Your task to perform on an android device: Go to calendar. Show me events next week Image 0: 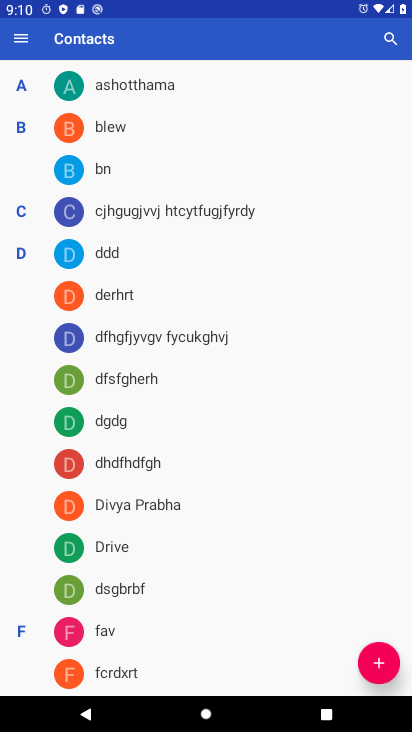
Step 0: press home button
Your task to perform on an android device: Go to calendar. Show me events next week Image 1: 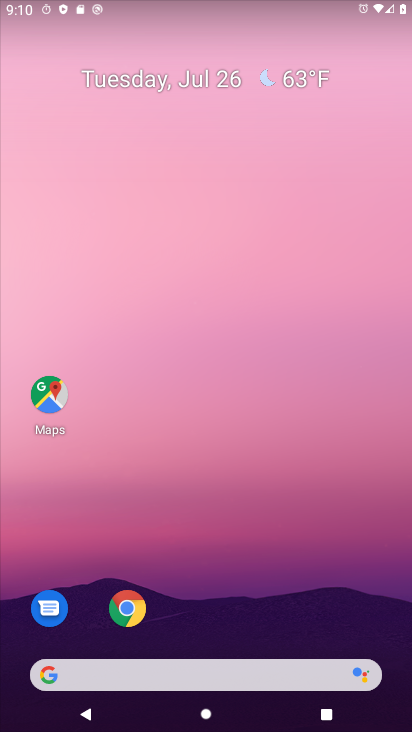
Step 1: drag from (255, 576) to (267, 32)
Your task to perform on an android device: Go to calendar. Show me events next week Image 2: 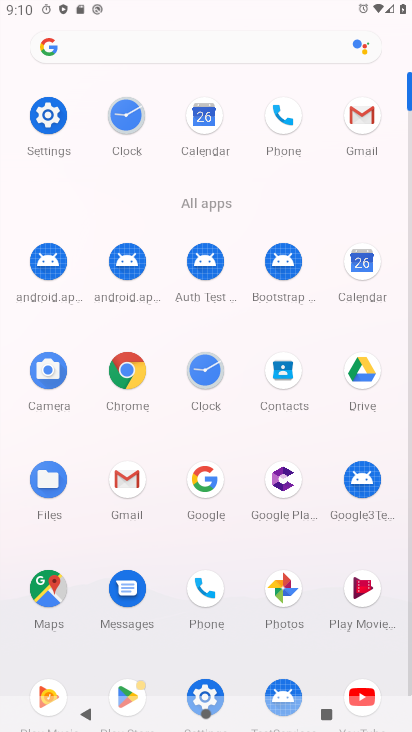
Step 2: click (363, 262)
Your task to perform on an android device: Go to calendar. Show me events next week Image 3: 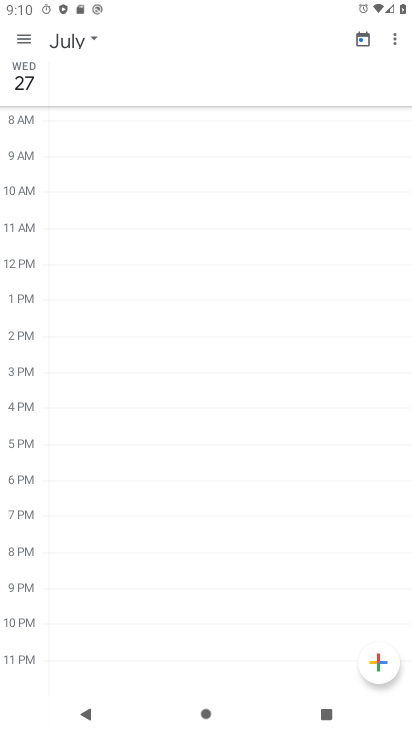
Step 3: click (25, 43)
Your task to perform on an android device: Go to calendar. Show me events next week Image 4: 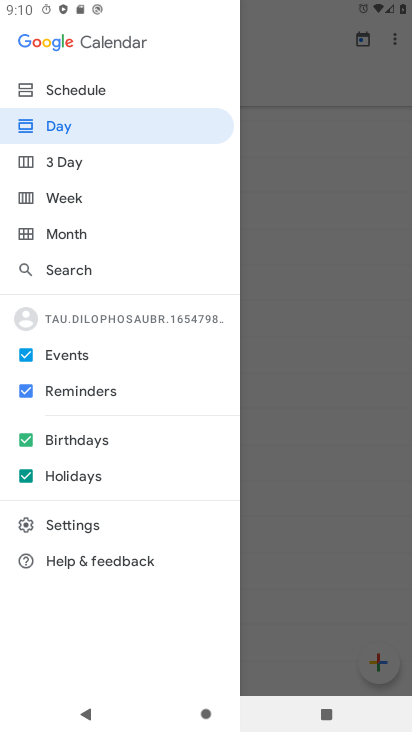
Step 4: click (86, 196)
Your task to perform on an android device: Go to calendar. Show me events next week Image 5: 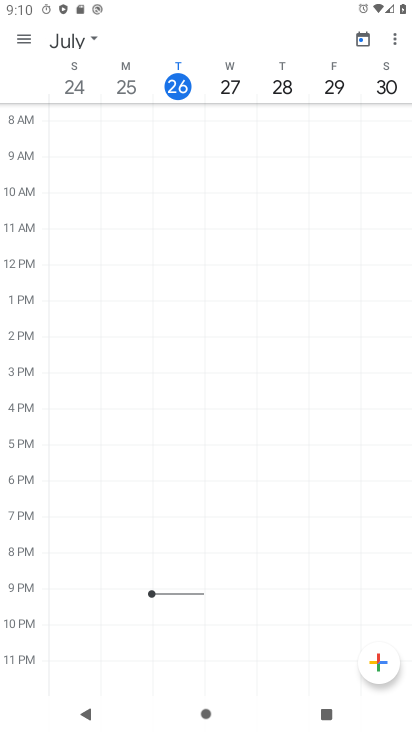
Step 5: click (73, 35)
Your task to perform on an android device: Go to calendar. Show me events next week Image 6: 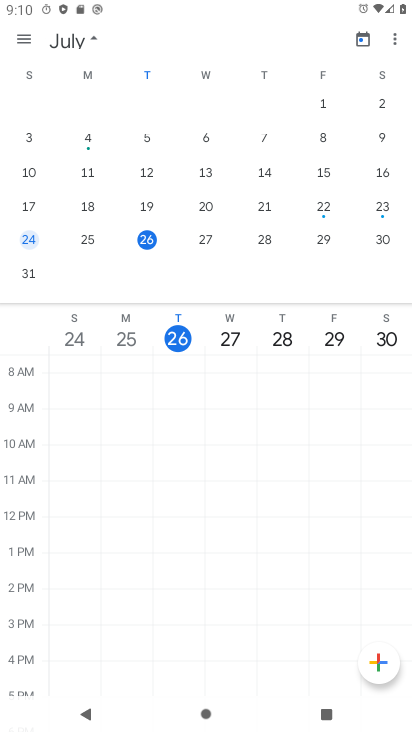
Step 6: click (22, 272)
Your task to perform on an android device: Go to calendar. Show me events next week Image 7: 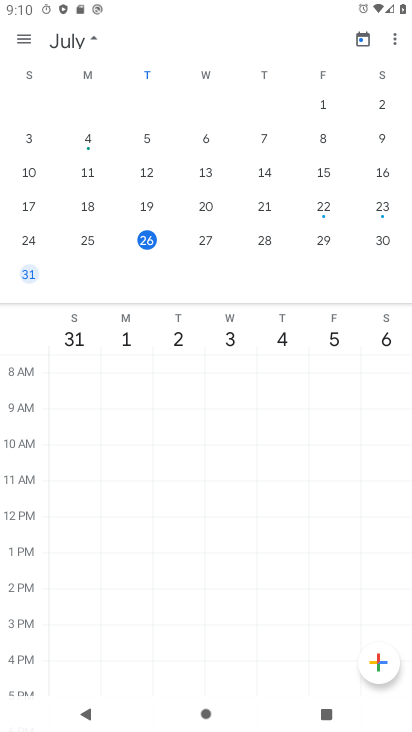
Step 7: task complete